Your task to perform on an android device: make emails show in primary in the gmail app Image 0: 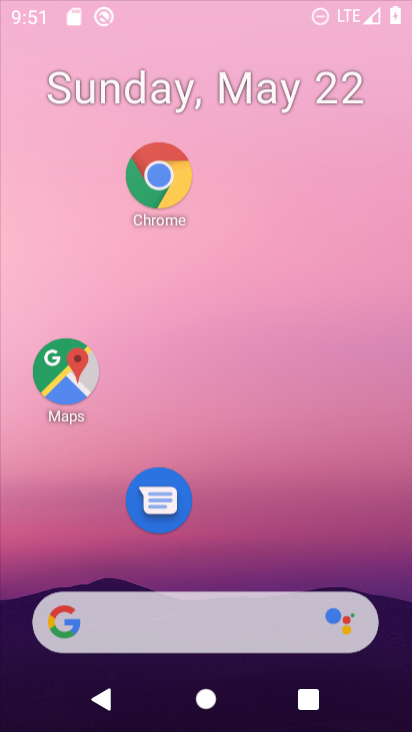
Step 0: press back button
Your task to perform on an android device: make emails show in primary in the gmail app Image 1: 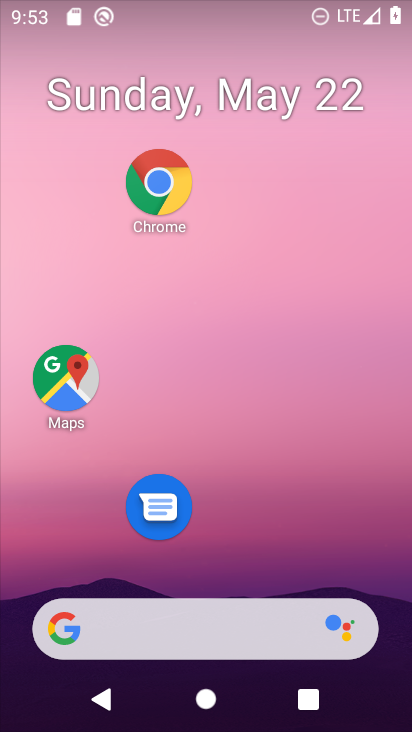
Step 1: drag from (237, 648) to (292, 4)
Your task to perform on an android device: make emails show in primary in the gmail app Image 2: 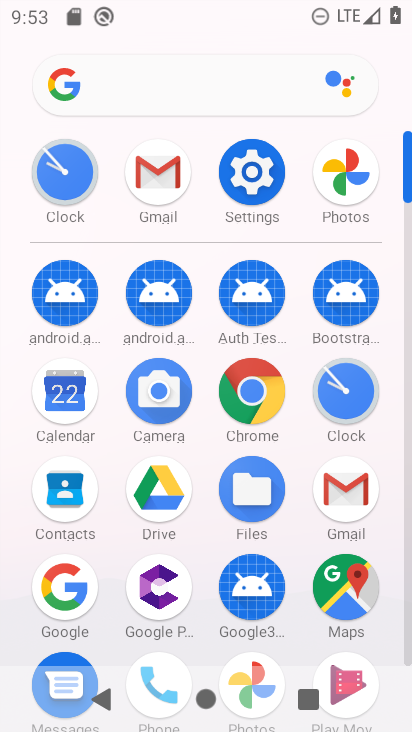
Step 2: click (162, 178)
Your task to perform on an android device: make emails show in primary in the gmail app Image 3: 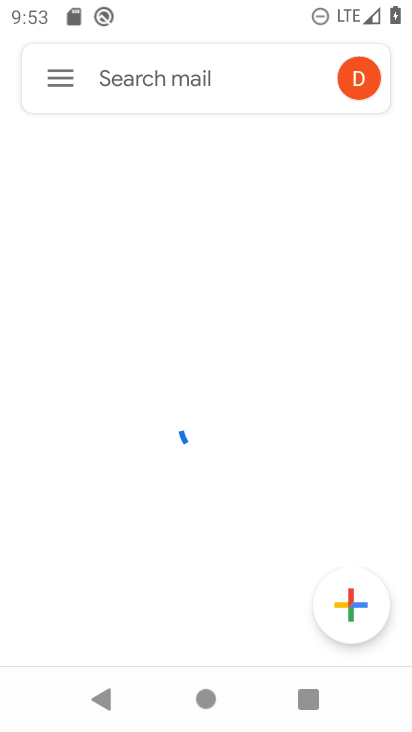
Step 3: click (68, 82)
Your task to perform on an android device: make emails show in primary in the gmail app Image 4: 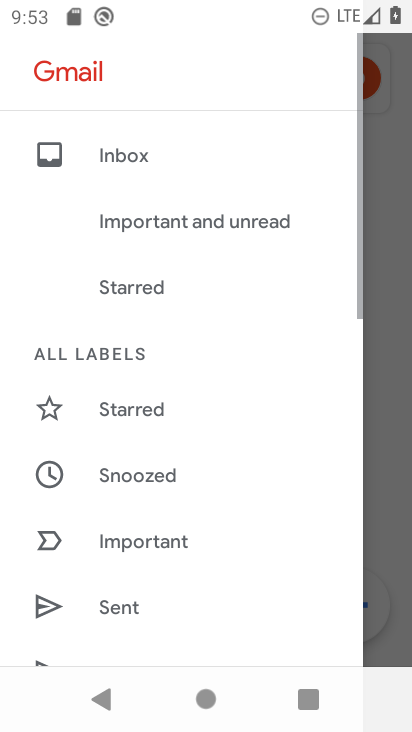
Step 4: drag from (166, 550) to (242, 1)
Your task to perform on an android device: make emails show in primary in the gmail app Image 5: 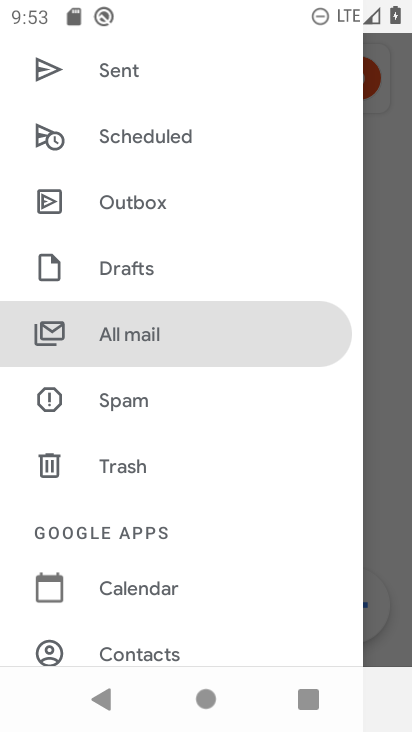
Step 5: drag from (184, 428) to (121, 13)
Your task to perform on an android device: make emails show in primary in the gmail app Image 6: 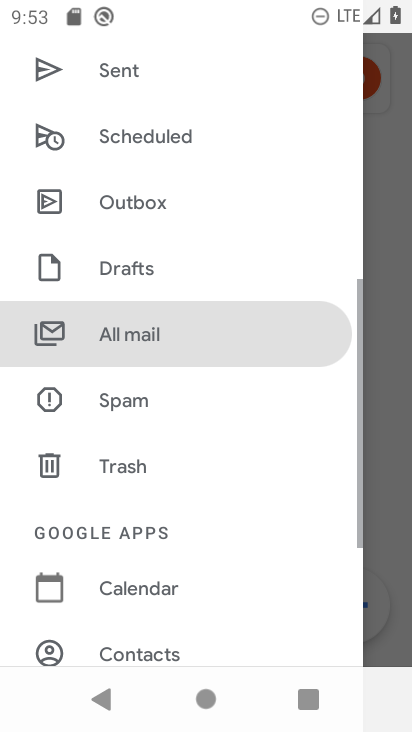
Step 6: drag from (203, 557) to (172, 13)
Your task to perform on an android device: make emails show in primary in the gmail app Image 7: 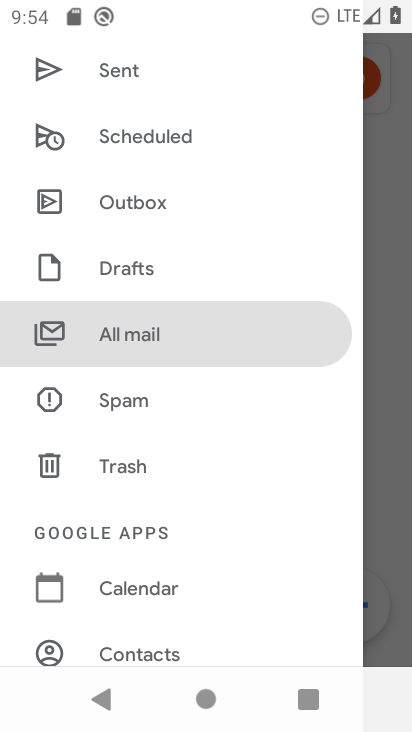
Step 7: drag from (125, 573) to (128, 30)
Your task to perform on an android device: make emails show in primary in the gmail app Image 8: 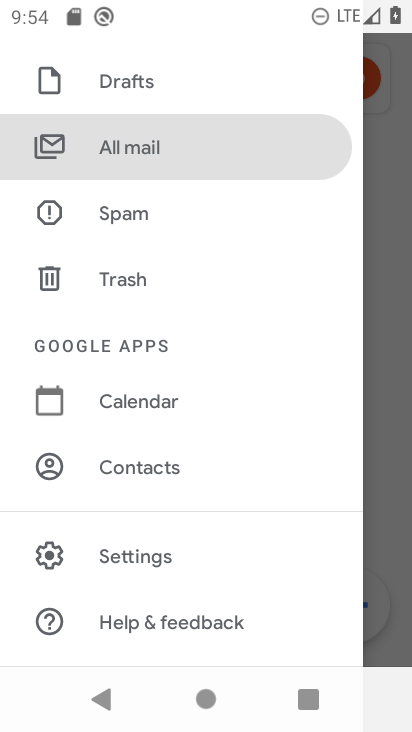
Step 8: click (224, 539)
Your task to perform on an android device: make emails show in primary in the gmail app Image 9: 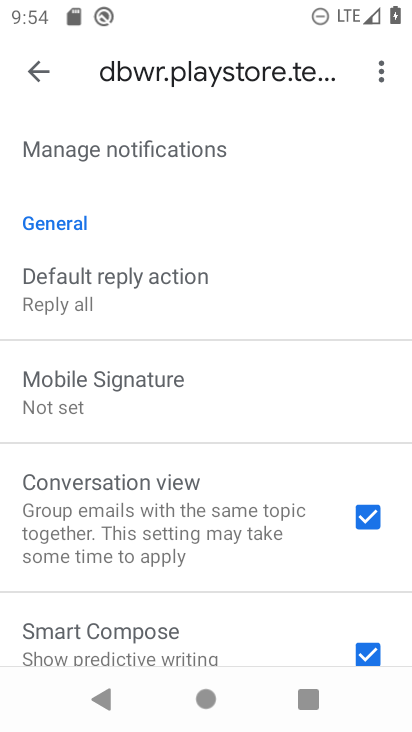
Step 9: drag from (297, 153) to (232, 670)
Your task to perform on an android device: make emails show in primary in the gmail app Image 10: 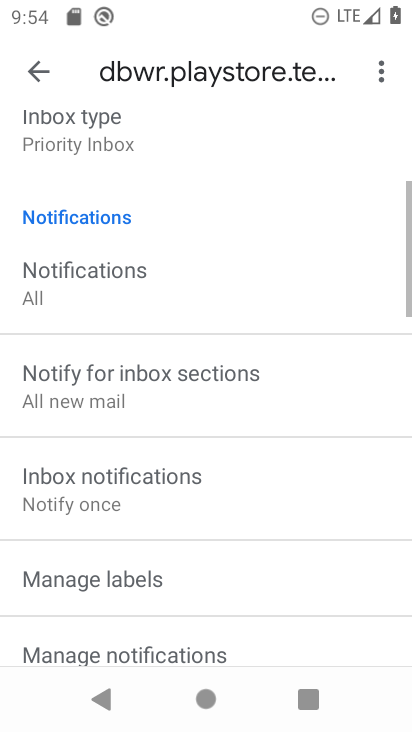
Step 10: drag from (249, 341) to (239, 601)
Your task to perform on an android device: make emails show in primary in the gmail app Image 11: 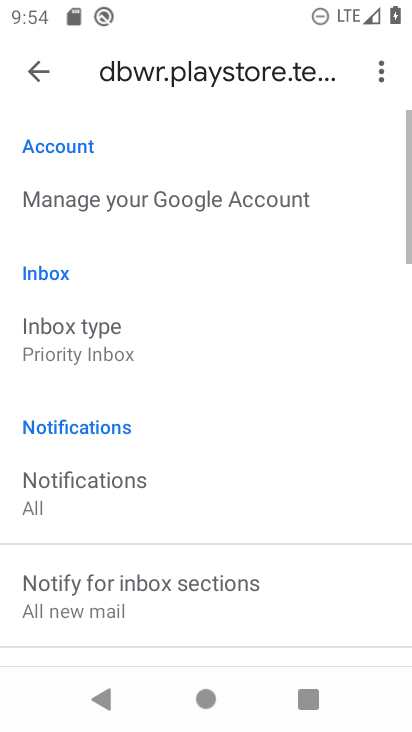
Step 11: click (65, 328)
Your task to perform on an android device: make emails show in primary in the gmail app Image 12: 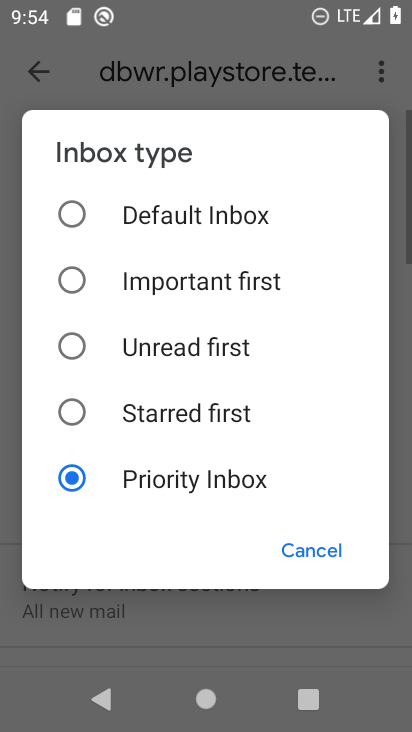
Step 12: click (198, 208)
Your task to perform on an android device: make emails show in primary in the gmail app Image 13: 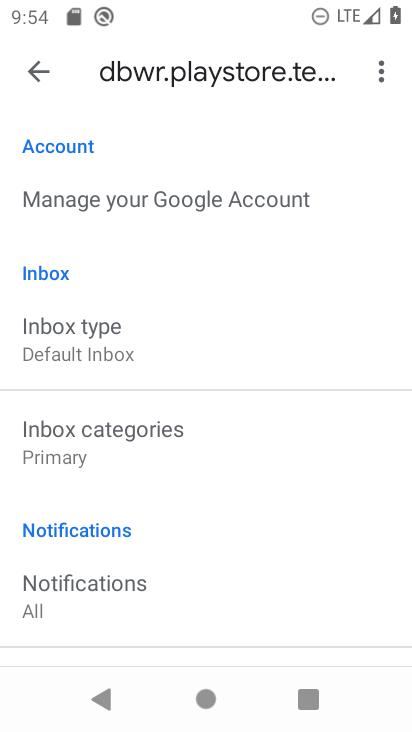
Step 13: task complete